Your task to perform on an android device: Search for seafood restaurants on Google Maps Image 0: 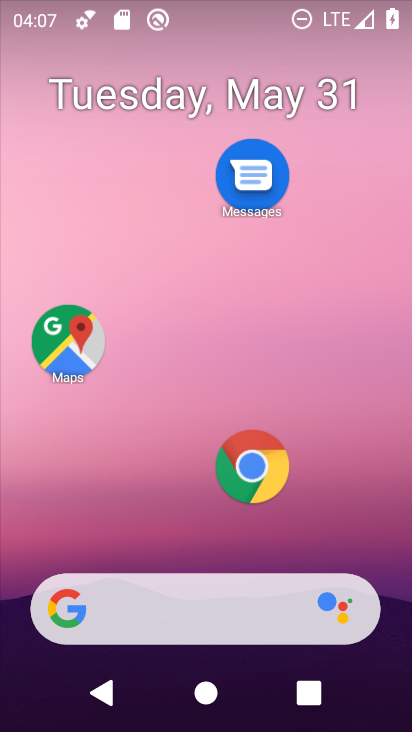
Step 0: click (76, 304)
Your task to perform on an android device: Search for seafood restaurants on Google Maps Image 1: 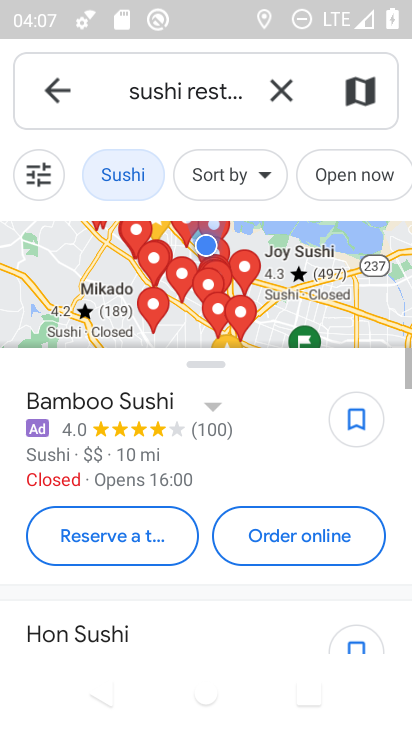
Step 1: click (268, 80)
Your task to perform on an android device: Search for seafood restaurants on Google Maps Image 2: 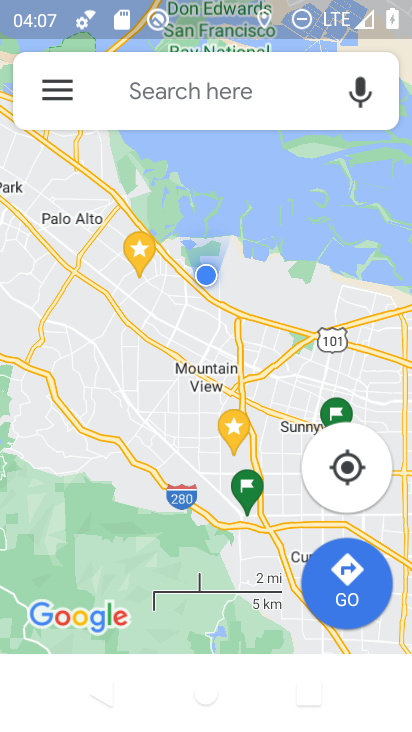
Step 2: click (155, 85)
Your task to perform on an android device: Search for seafood restaurants on Google Maps Image 3: 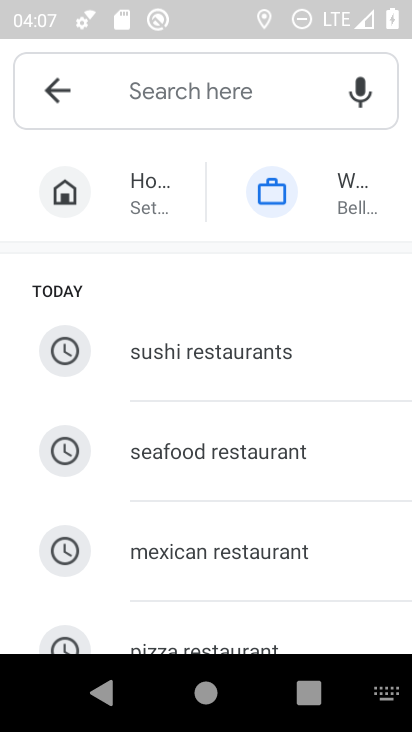
Step 3: click (196, 457)
Your task to perform on an android device: Search for seafood restaurants on Google Maps Image 4: 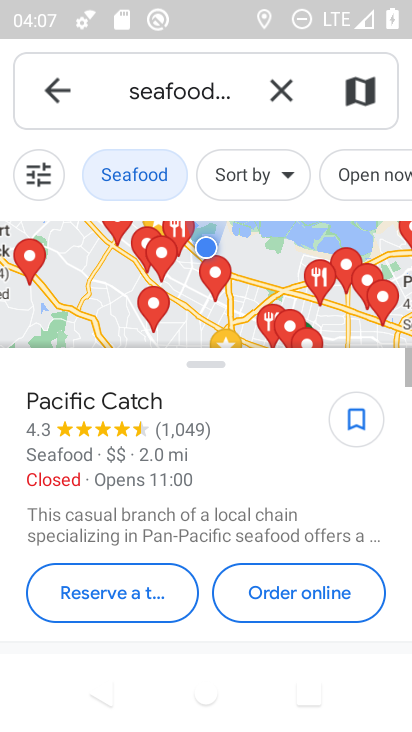
Step 4: task complete